Your task to perform on an android device: toggle translation in the chrome app Image 0: 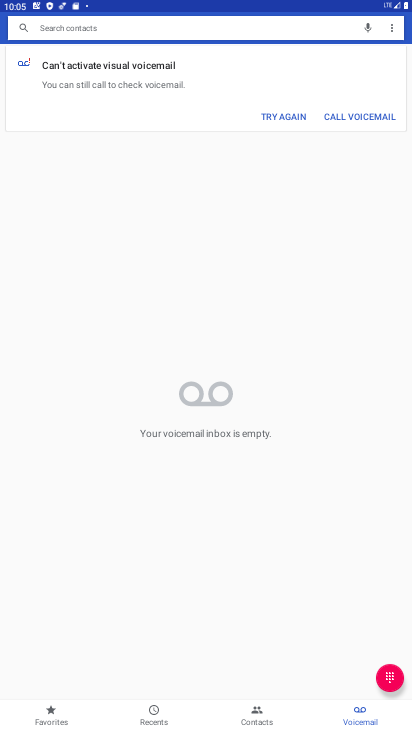
Step 0: press home button
Your task to perform on an android device: toggle translation in the chrome app Image 1: 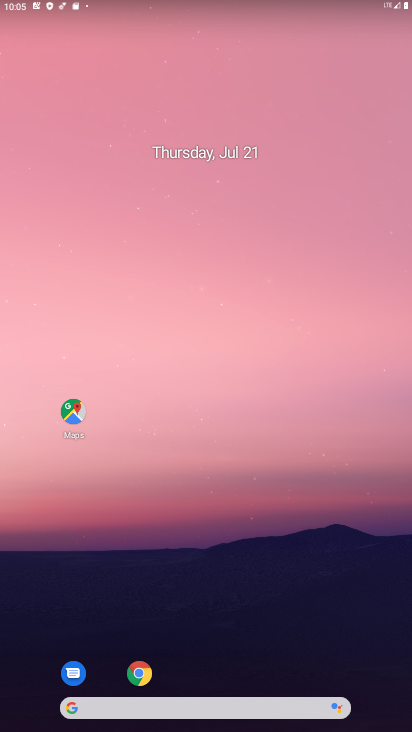
Step 1: click (148, 660)
Your task to perform on an android device: toggle translation in the chrome app Image 2: 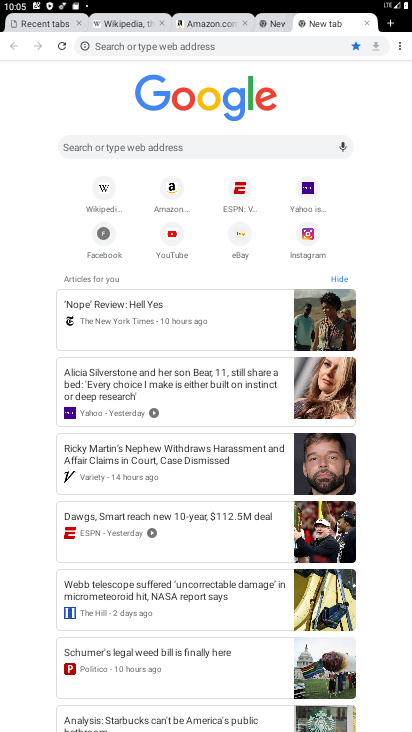
Step 2: click (397, 46)
Your task to perform on an android device: toggle translation in the chrome app Image 3: 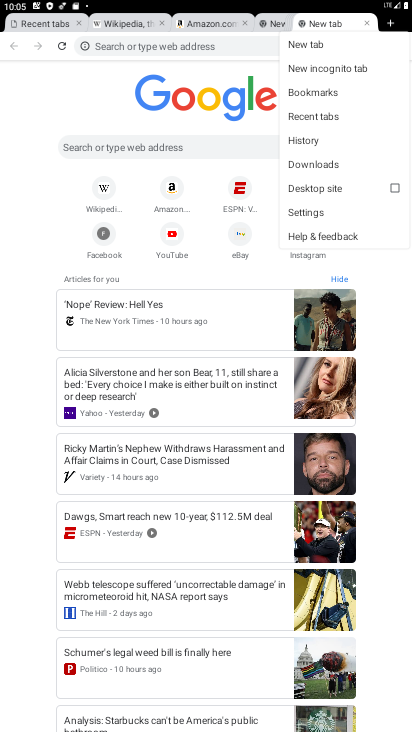
Step 3: click (316, 212)
Your task to perform on an android device: toggle translation in the chrome app Image 4: 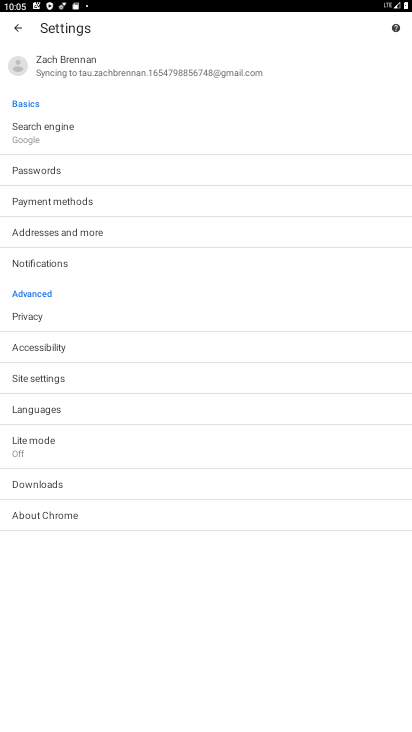
Step 4: click (60, 401)
Your task to perform on an android device: toggle translation in the chrome app Image 5: 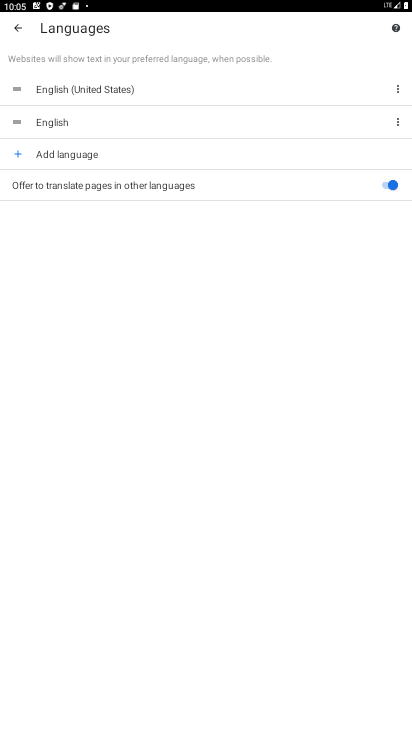
Step 5: click (393, 181)
Your task to perform on an android device: toggle translation in the chrome app Image 6: 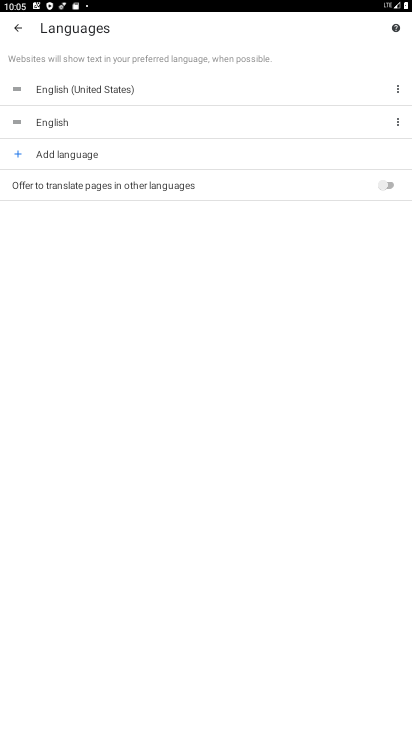
Step 6: task complete